Your task to perform on an android device: Open display settings Image 0: 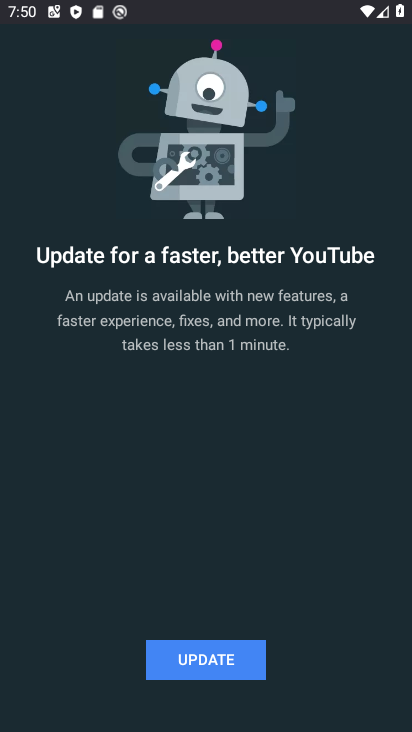
Step 0: press back button
Your task to perform on an android device: Open display settings Image 1: 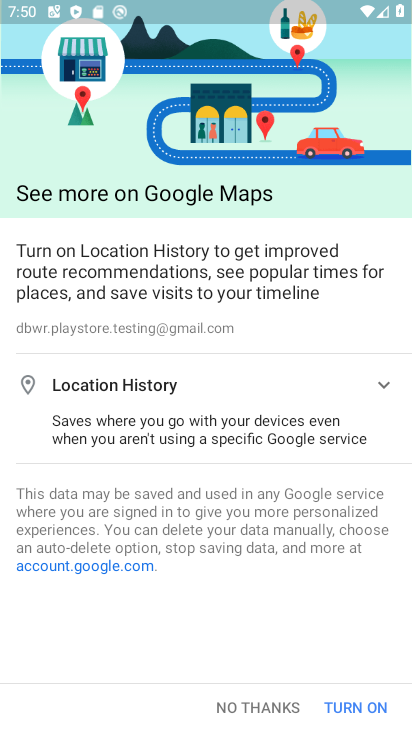
Step 1: press back button
Your task to perform on an android device: Open display settings Image 2: 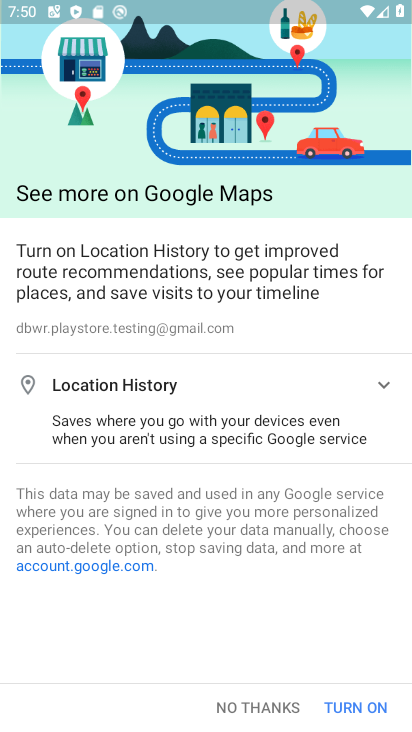
Step 2: press back button
Your task to perform on an android device: Open display settings Image 3: 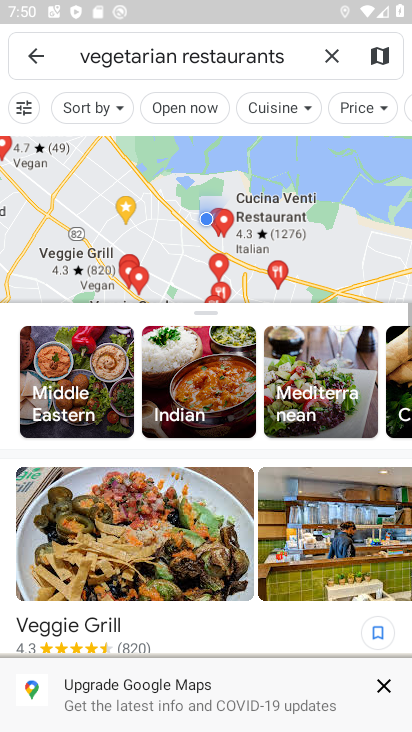
Step 3: press home button
Your task to perform on an android device: Open display settings Image 4: 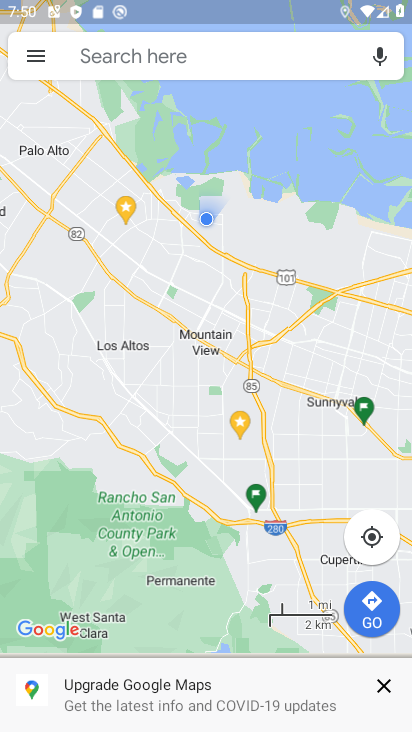
Step 4: press home button
Your task to perform on an android device: Open display settings Image 5: 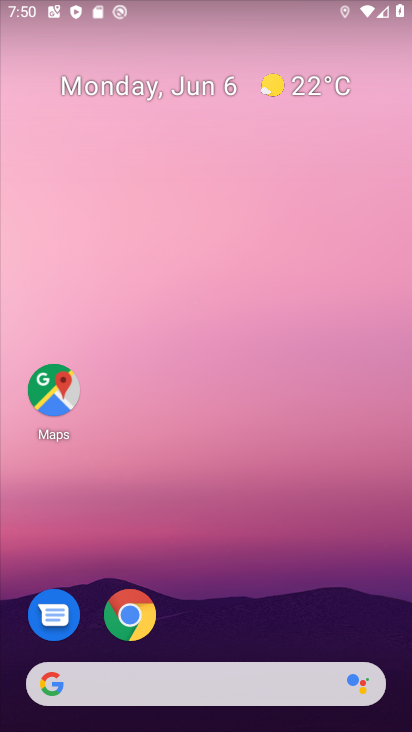
Step 5: press home button
Your task to perform on an android device: Open display settings Image 6: 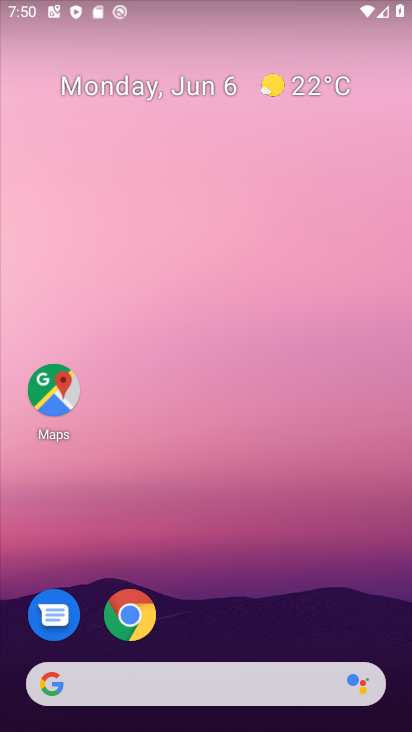
Step 6: drag from (383, 674) to (315, 75)
Your task to perform on an android device: Open display settings Image 7: 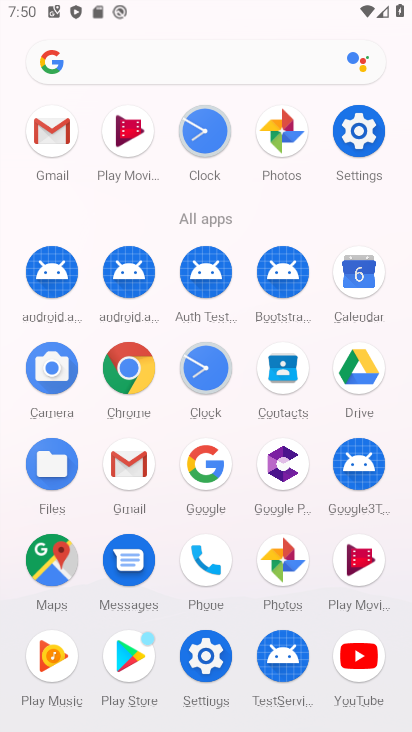
Step 7: click (351, 115)
Your task to perform on an android device: Open display settings Image 8: 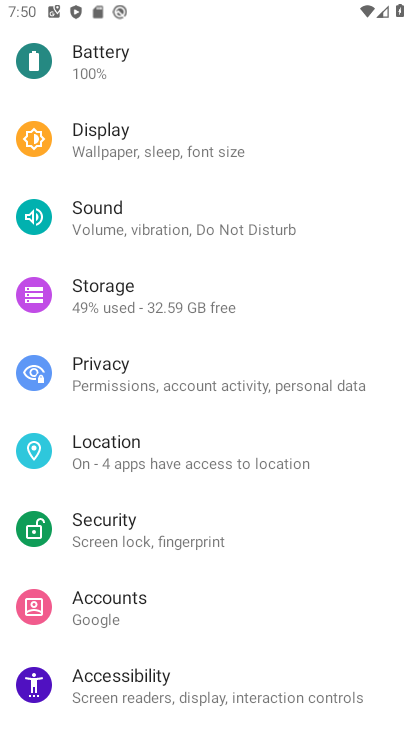
Step 8: click (116, 128)
Your task to perform on an android device: Open display settings Image 9: 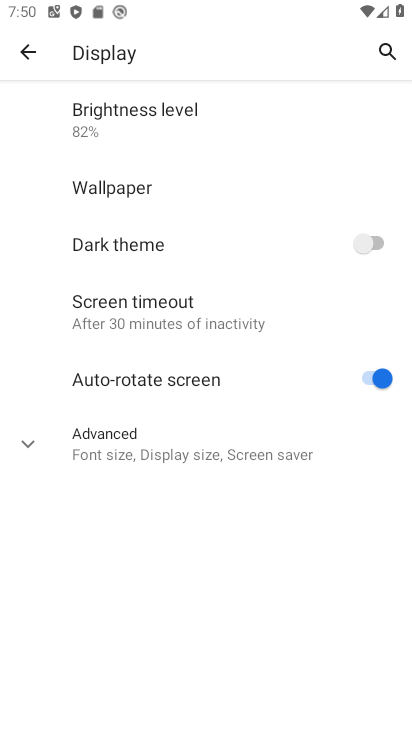
Step 9: click (26, 431)
Your task to perform on an android device: Open display settings Image 10: 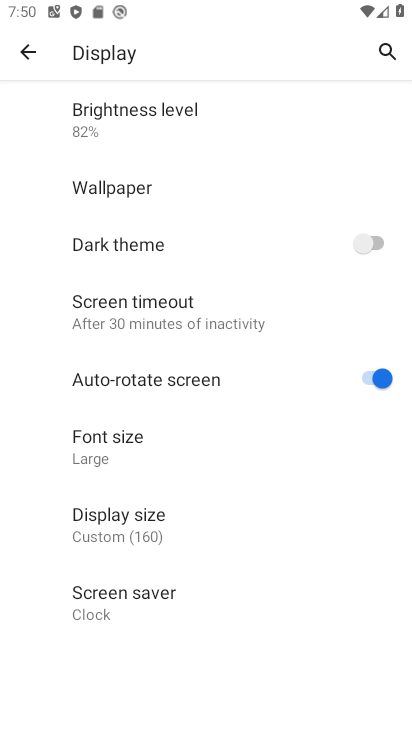
Step 10: task complete